Your task to perform on an android device: add a contact in the contacts app Image 0: 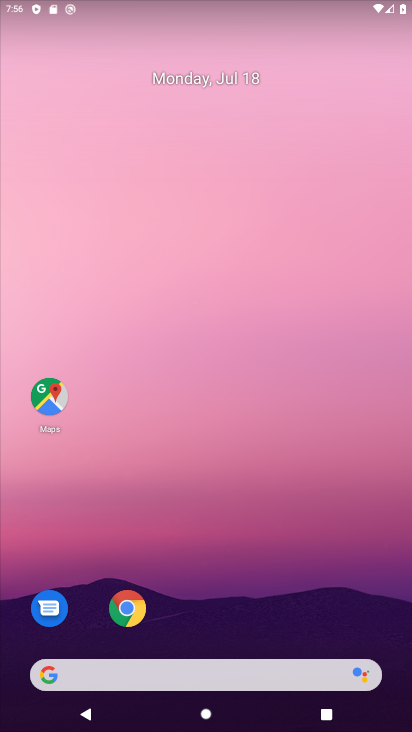
Step 0: drag from (10, 712) to (164, 40)
Your task to perform on an android device: add a contact in the contacts app Image 1: 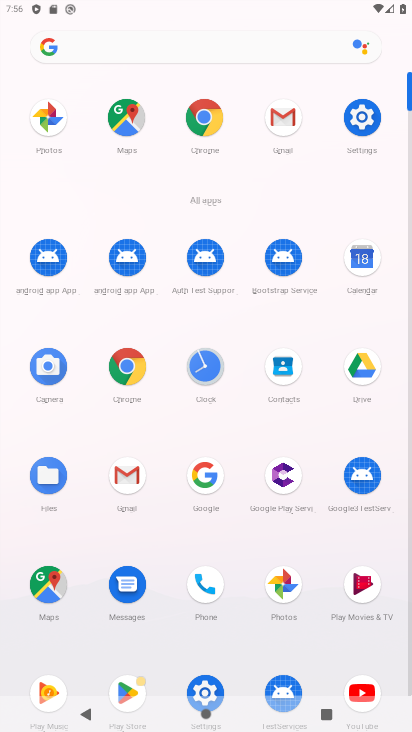
Step 1: click (282, 391)
Your task to perform on an android device: add a contact in the contacts app Image 2: 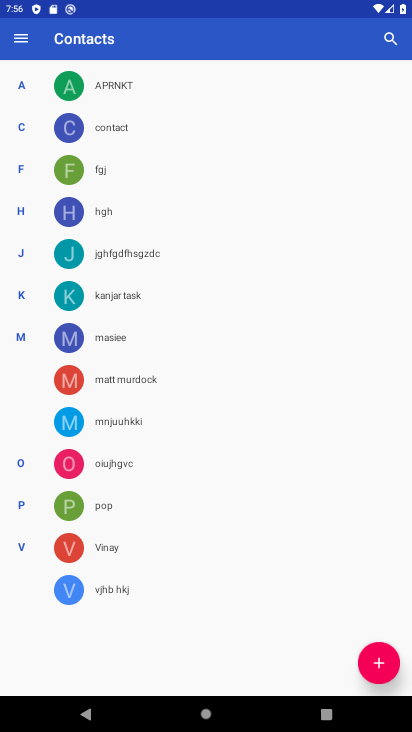
Step 2: click (380, 668)
Your task to perform on an android device: add a contact in the contacts app Image 3: 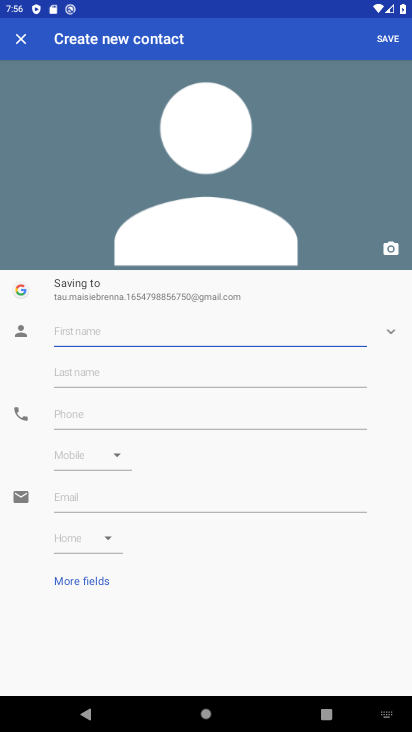
Step 3: type "yytredsf"
Your task to perform on an android device: add a contact in the contacts app Image 4: 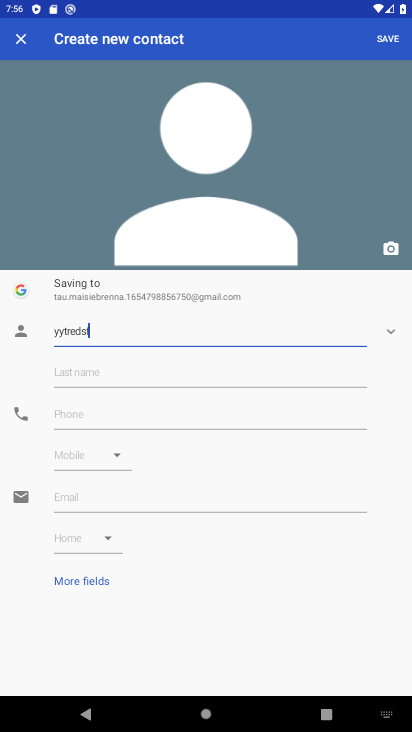
Step 4: type ""
Your task to perform on an android device: add a contact in the contacts app Image 5: 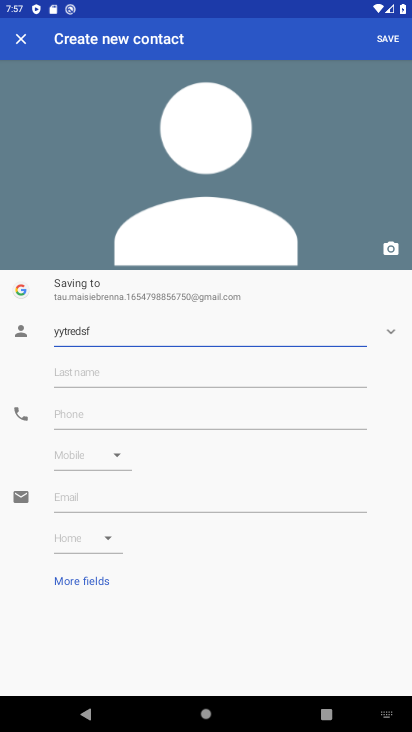
Step 5: click (380, 39)
Your task to perform on an android device: add a contact in the contacts app Image 6: 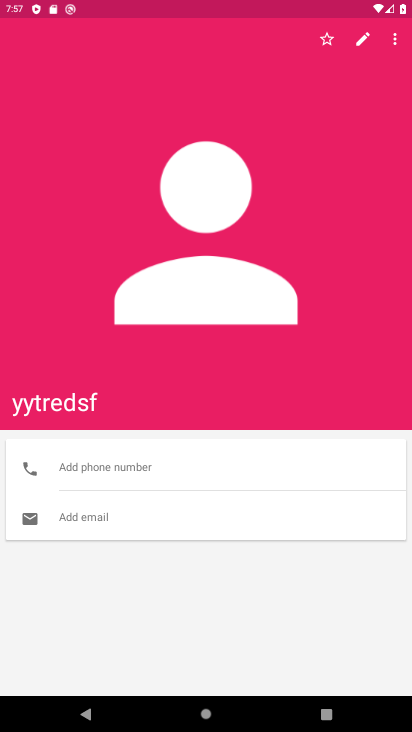
Step 6: task complete